Your task to perform on an android device: Open the stopwatch Image 0: 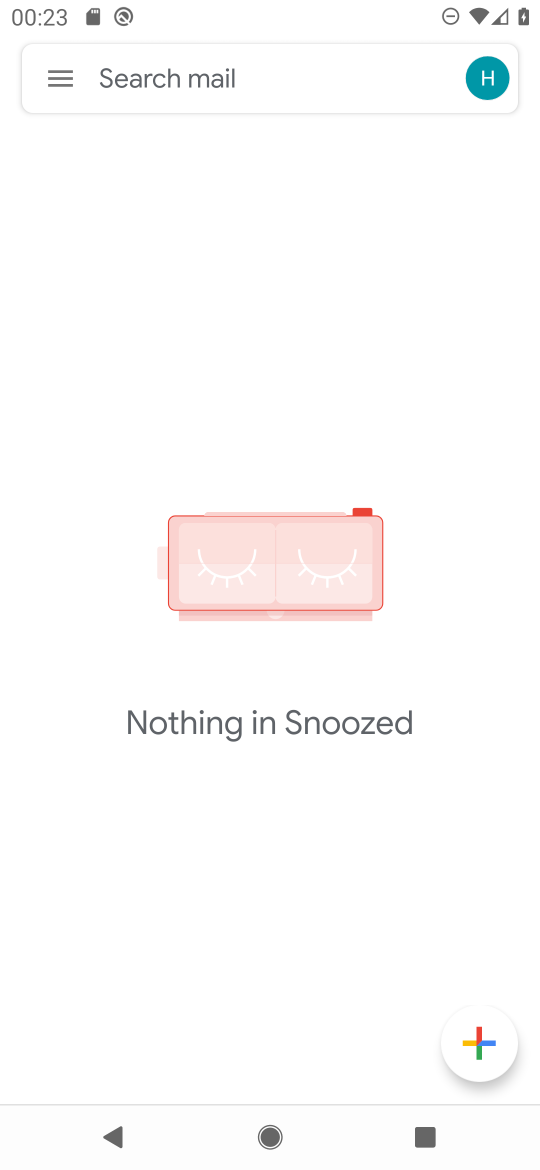
Step 0: press home button
Your task to perform on an android device: Open the stopwatch Image 1: 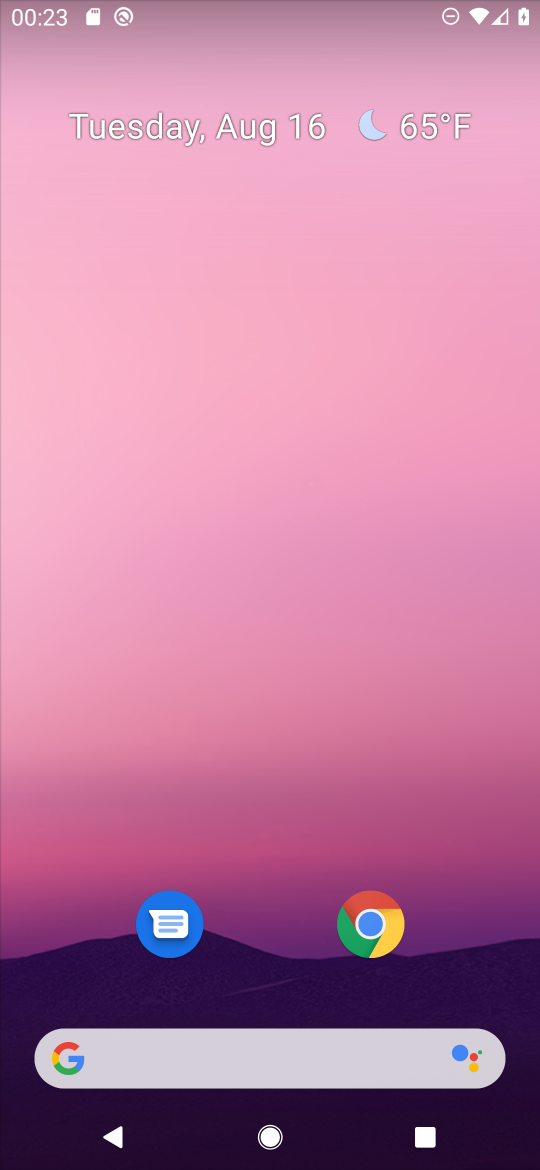
Step 1: drag from (460, 904) to (387, 39)
Your task to perform on an android device: Open the stopwatch Image 2: 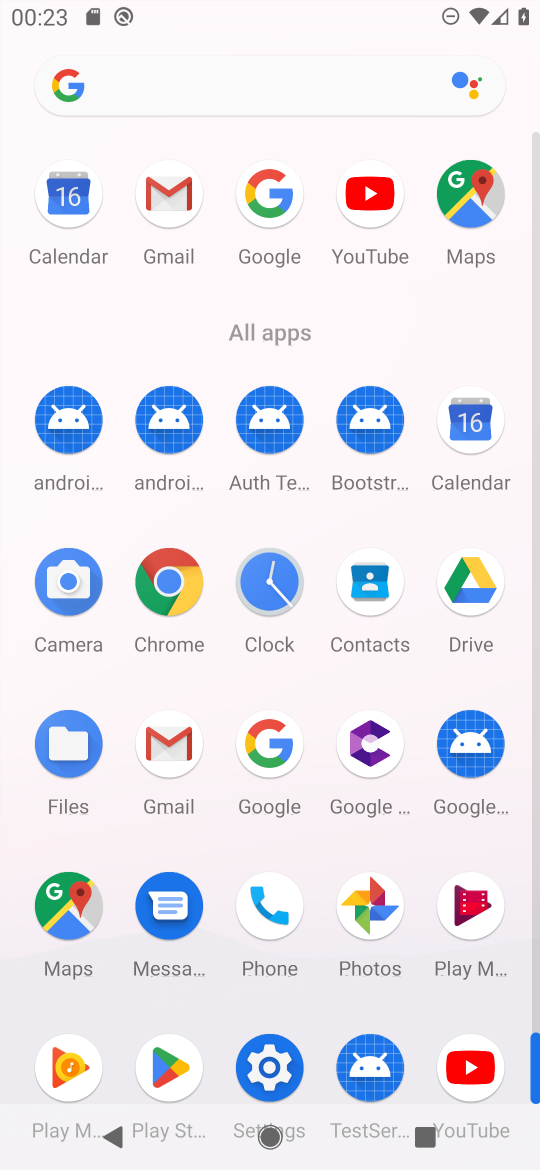
Step 2: click (283, 601)
Your task to perform on an android device: Open the stopwatch Image 3: 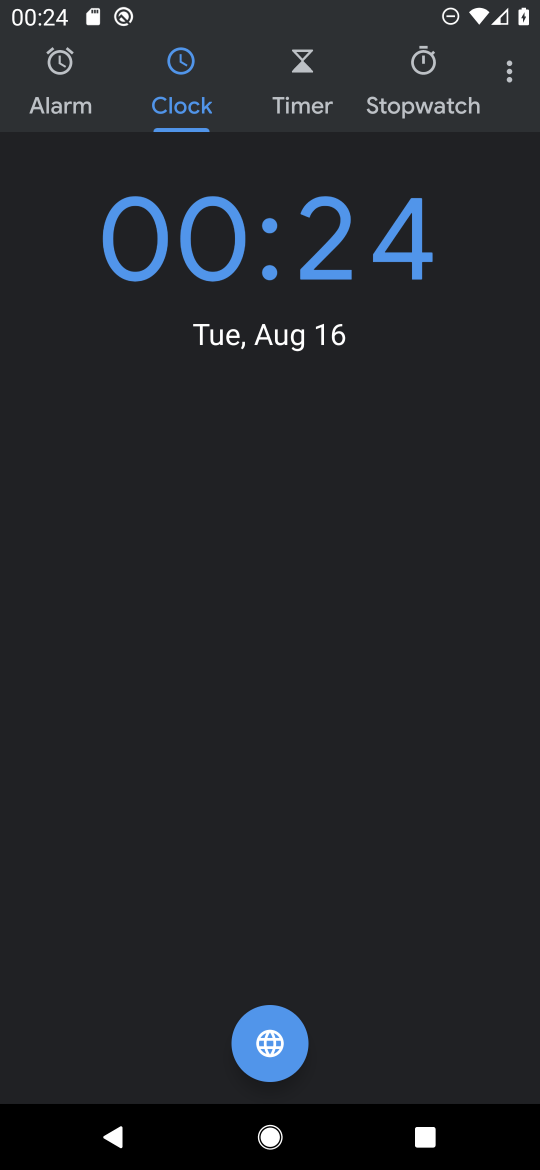
Step 3: click (423, 53)
Your task to perform on an android device: Open the stopwatch Image 4: 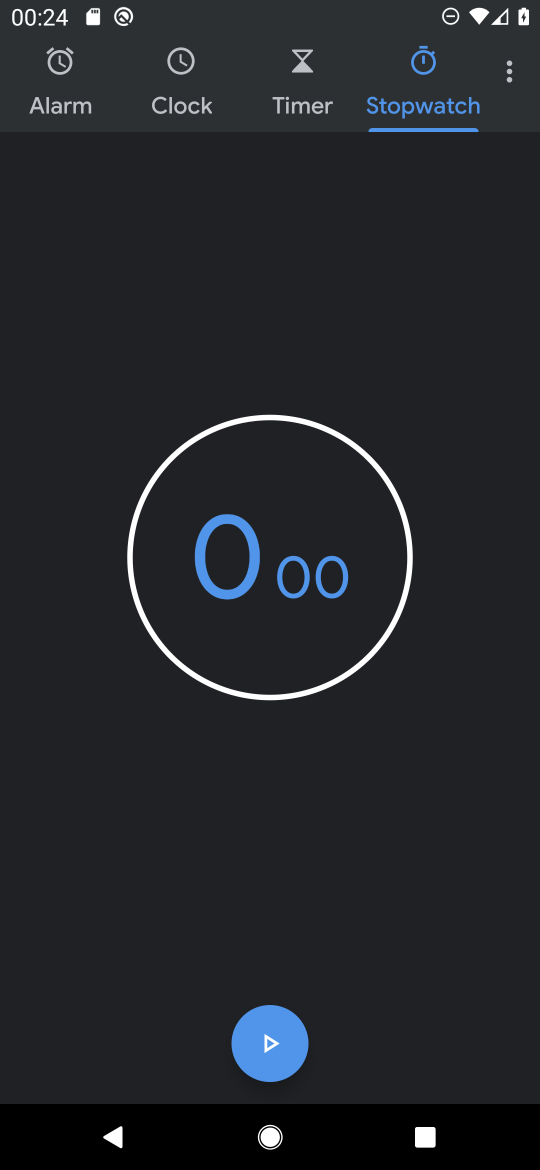
Step 4: task complete